Your task to perform on an android device: change alarm snooze length Image 0: 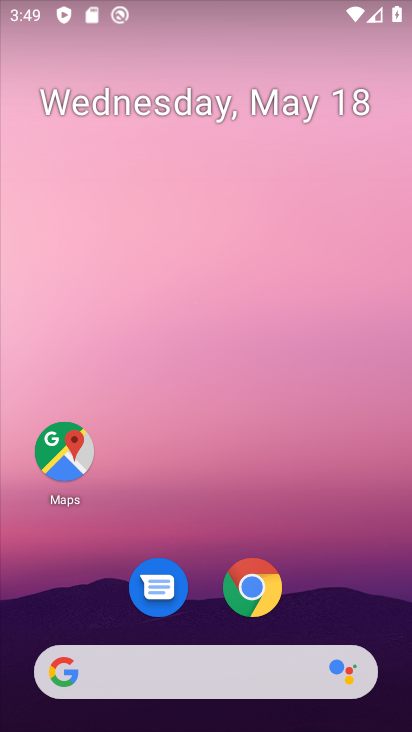
Step 0: drag from (295, 377) to (214, 60)
Your task to perform on an android device: change alarm snooze length Image 1: 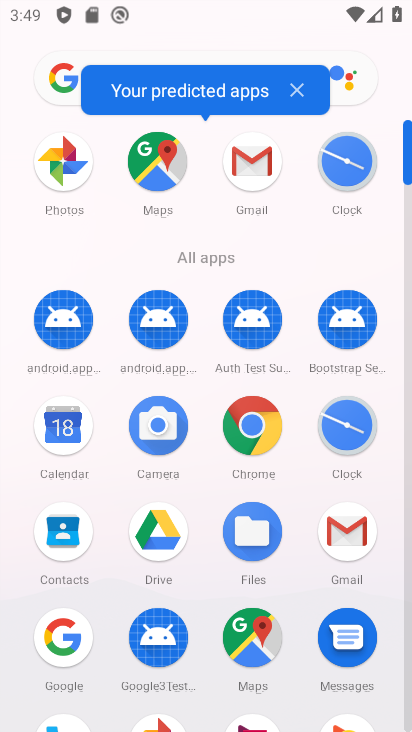
Step 1: click (352, 157)
Your task to perform on an android device: change alarm snooze length Image 2: 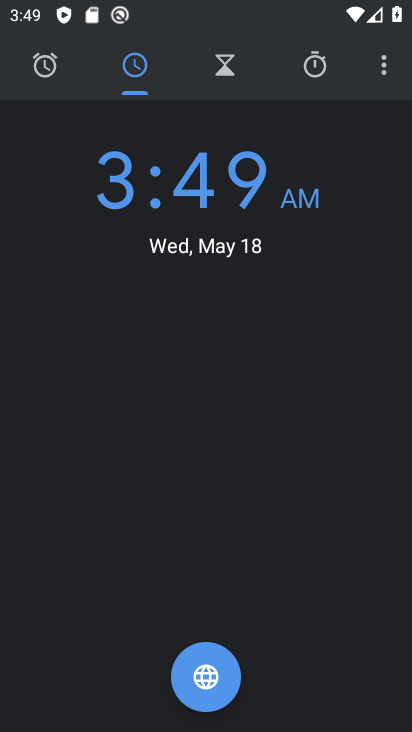
Step 2: click (397, 69)
Your task to perform on an android device: change alarm snooze length Image 3: 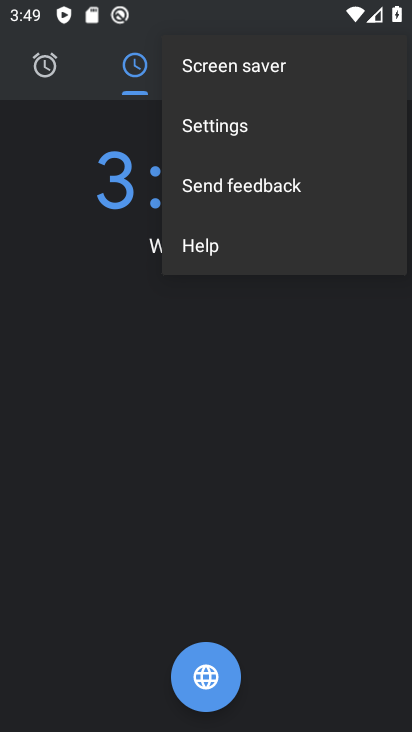
Step 3: click (248, 113)
Your task to perform on an android device: change alarm snooze length Image 4: 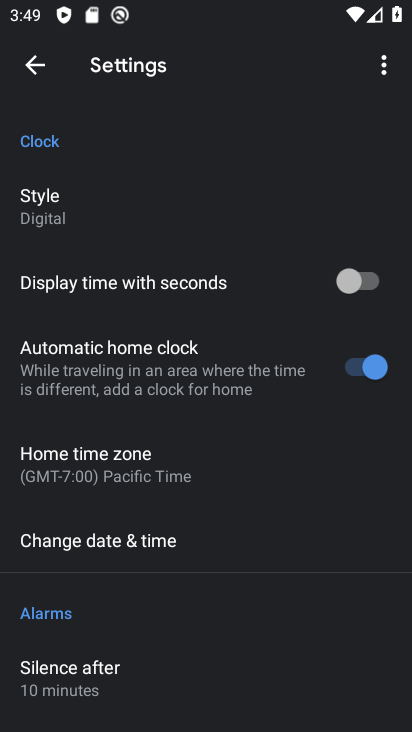
Step 4: drag from (157, 600) to (168, 264)
Your task to perform on an android device: change alarm snooze length Image 5: 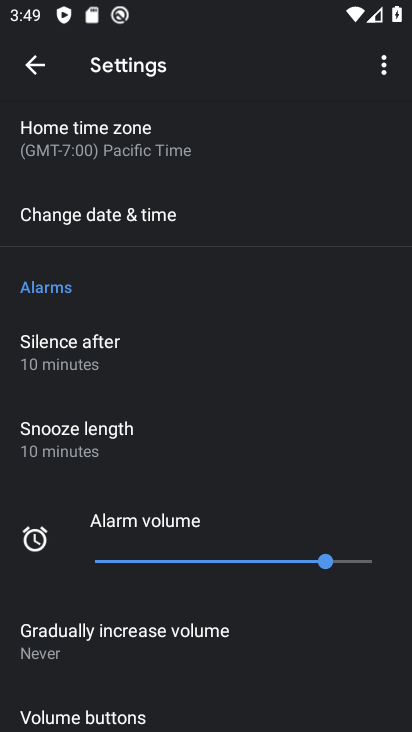
Step 5: click (147, 422)
Your task to perform on an android device: change alarm snooze length Image 6: 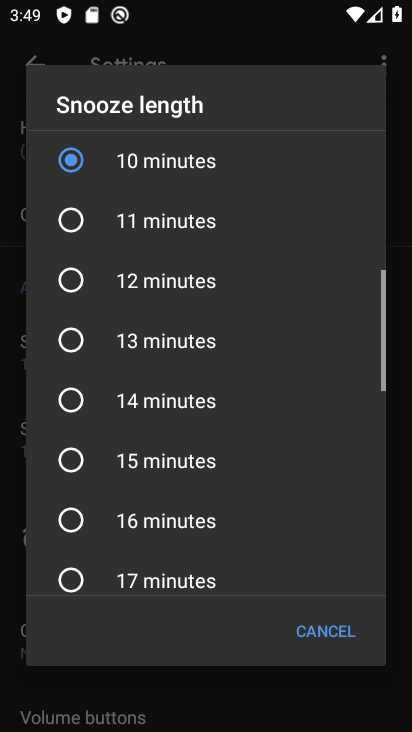
Step 6: click (227, 221)
Your task to perform on an android device: change alarm snooze length Image 7: 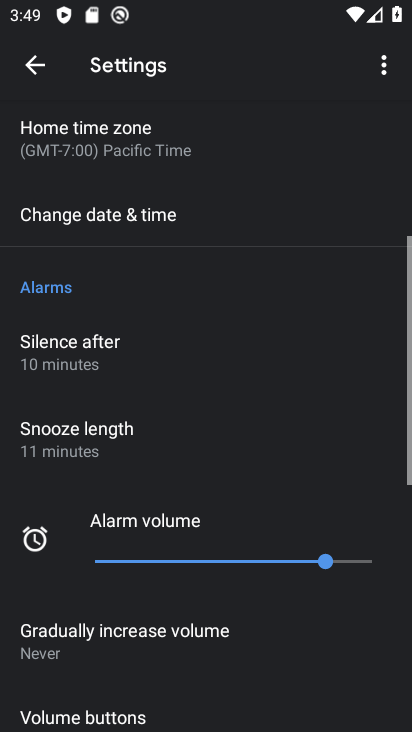
Step 7: task complete